Your task to perform on an android device: turn on showing notifications on the lock screen Image 0: 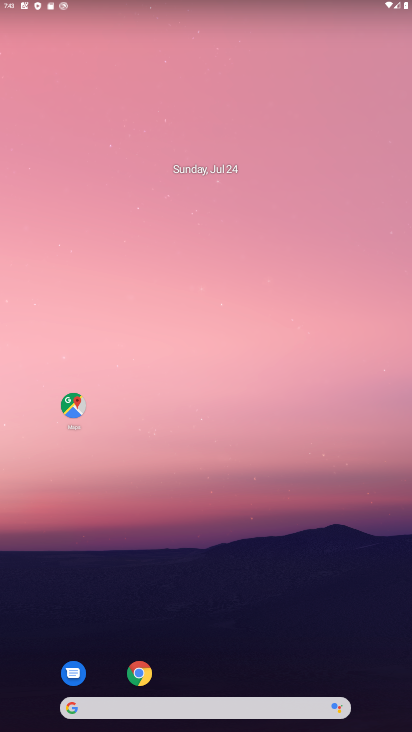
Step 0: drag from (219, 576) to (234, 239)
Your task to perform on an android device: turn on showing notifications on the lock screen Image 1: 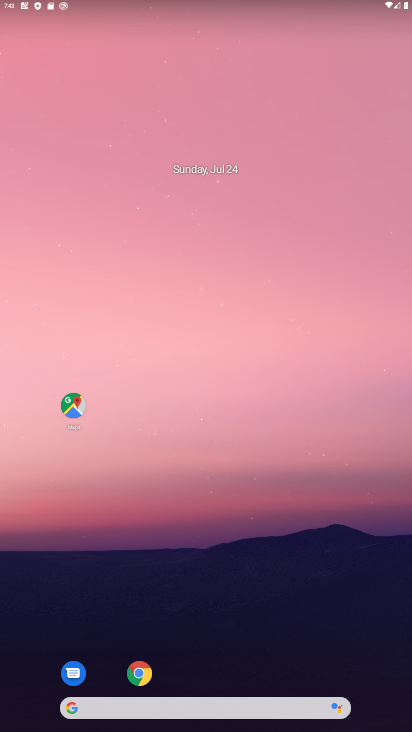
Step 1: drag from (203, 653) to (240, 263)
Your task to perform on an android device: turn on showing notifications on the lock screen Image 2: 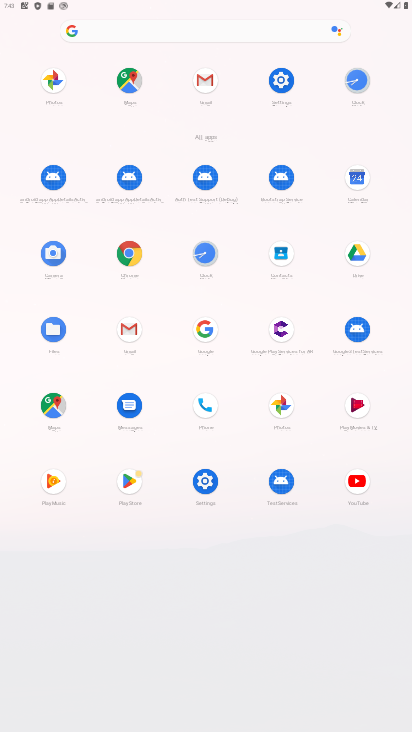
Step 2: click (211, 475)
Your task to perform on an android device: turn on showing notifications on the lock screen Image 3: 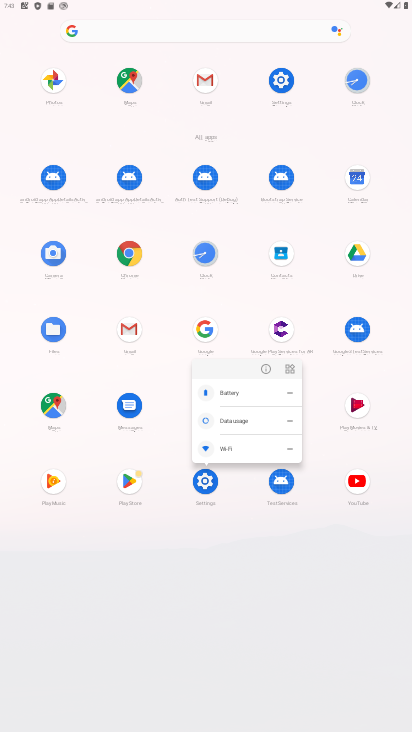
Step 3: click (263, 373)
Your task to perform on an android device: turn on showing notifications on the lock screen Image 4: 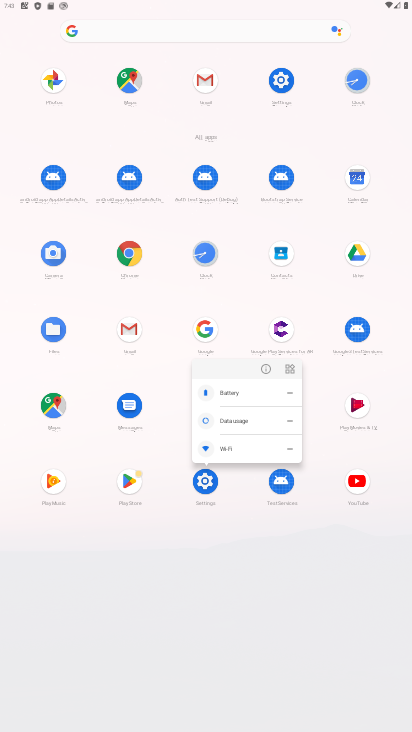
Step 4: click (263, 373)
Your task to perform on an android device: turn on showing notifications on the lock screen Image 5: 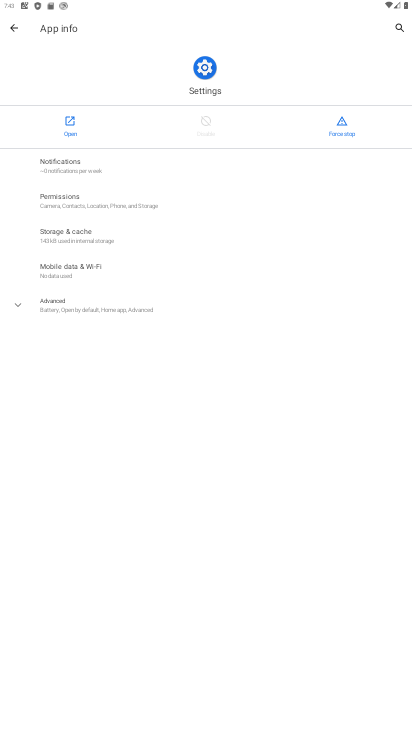
Step 5: click (74, 123)
Your task to perform on an android device: turn on showing notifications on the lock screen Image 6: 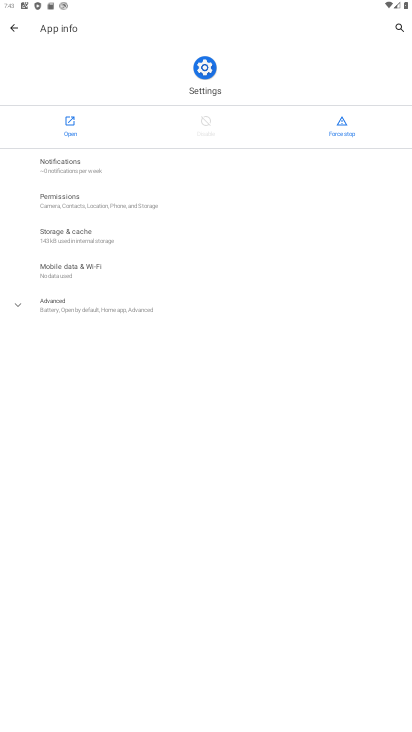
Step 6: click (74, 123)
Your task to perform on an android device: turn on showing notifications on the lock screen Image 7: 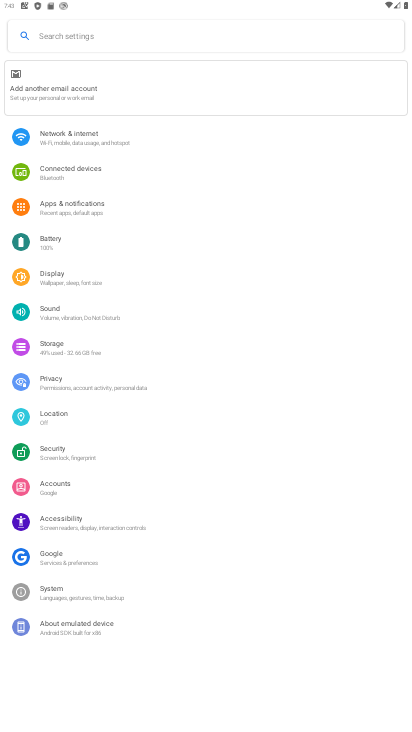
Step 7: click (89, 204)
Your task to perform on an android device: turn on showing notifications on the lock screen Image 8: 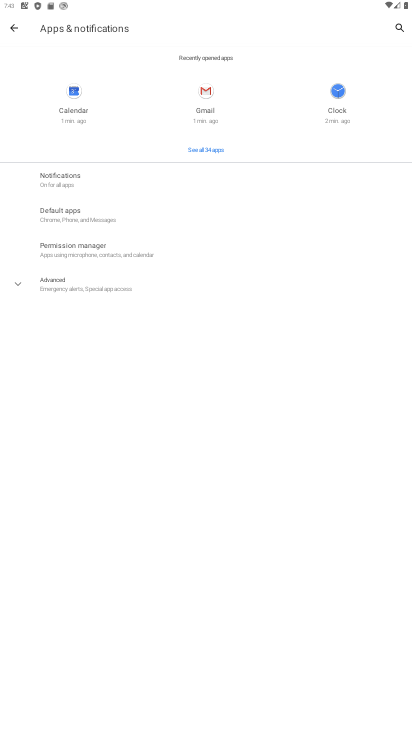
Step 8: click (74, 179)
Your task to perform on an android device: turn on showing notifications on the lock screen Image 9: 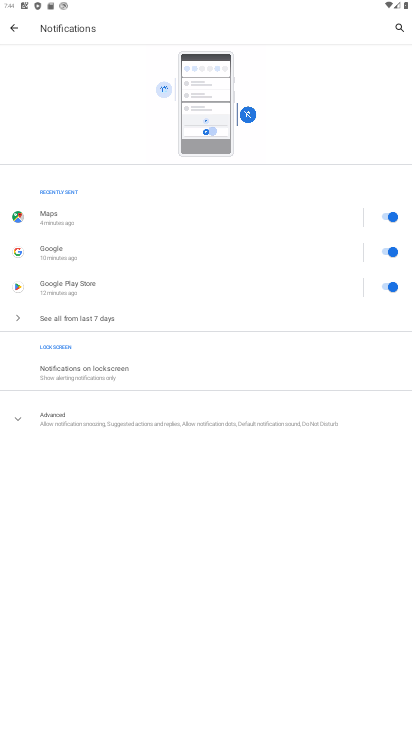
Step 9: click (94, 381)
Your task to perform on an android device: turn on showing notifications on the lock screen Image 10: 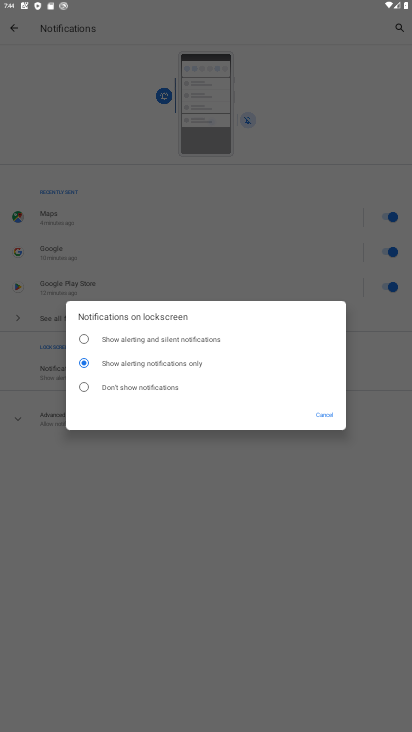
Step 10: click (106, 342)
Your task to perform on an android device: turn on showing notifications on the lock screen Image 11: 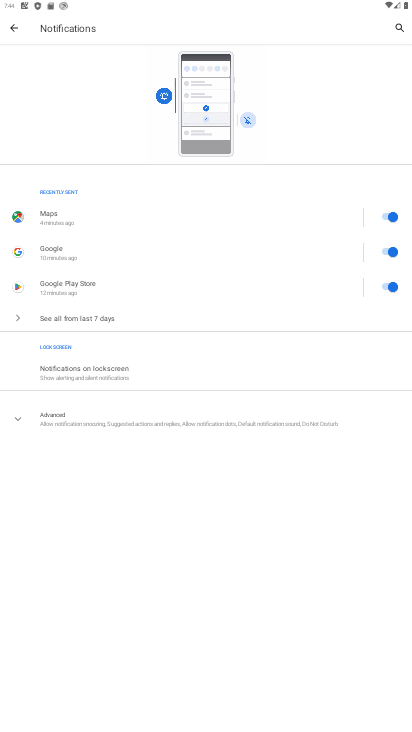
Step 11: task complete